Your task to perform on an android device: toggle airplane mode Image 0: 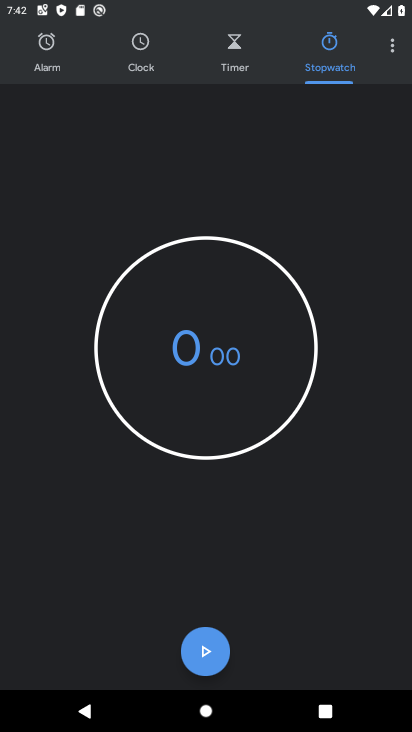
Step 0: press home button
Your task to perform on an android device: toggle airplane mode Image 1: 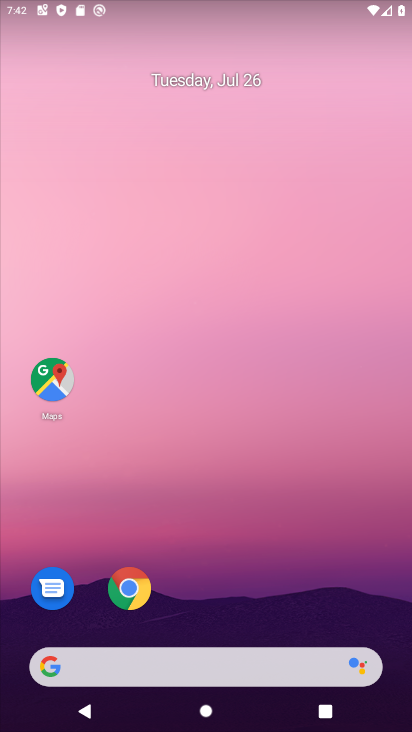
Step 1: drag from (246, 471) to (196, 88)
Your task to perform on an android device: toggle airplane mode Image 2: 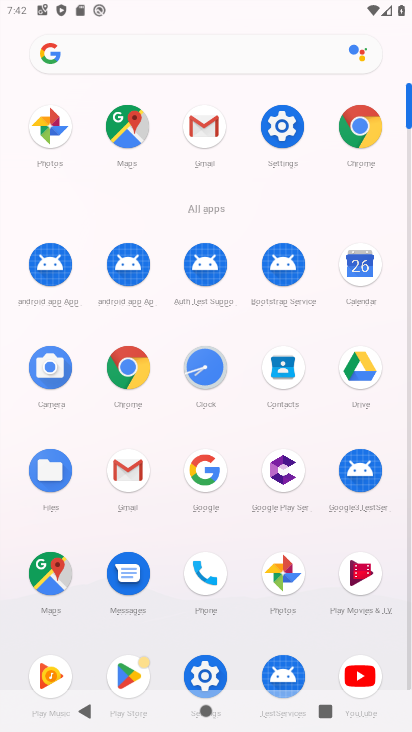
Step 2: click (270, 150)
Your task to perform on an android device: toggle airplane mode Image 3: 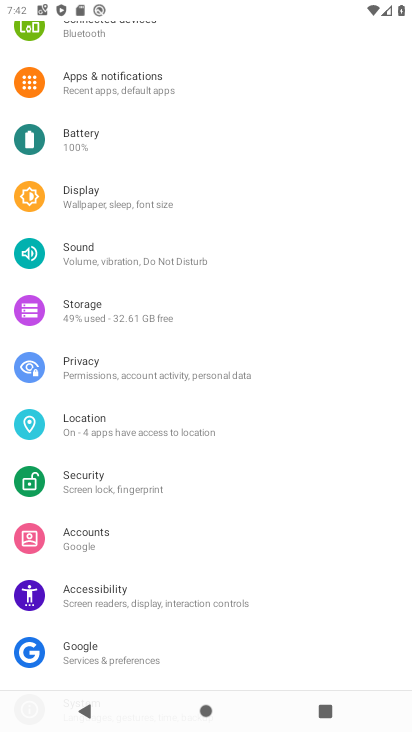
Step 3: drag from (264, 176) to (321, 464)
Your task to perform on an android device: toggle airplane mode Image 4: 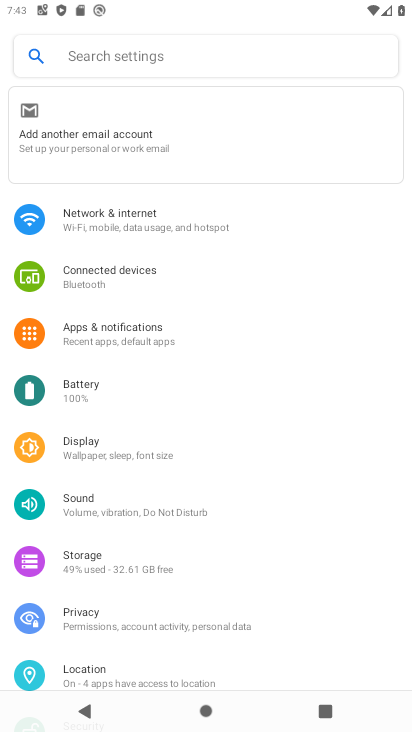
Step 4: click (182, 213)
Your task to perform on an android device: toggle airplane mode Image 5: 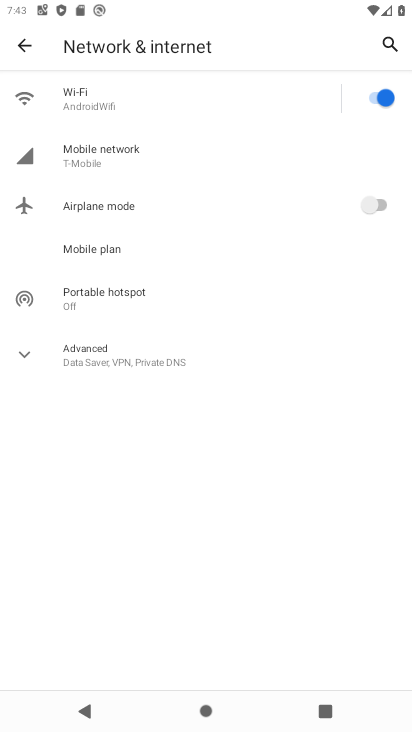
Step 5: task complete